Your task to perform on an android device: Open ESPN.com Image 0: 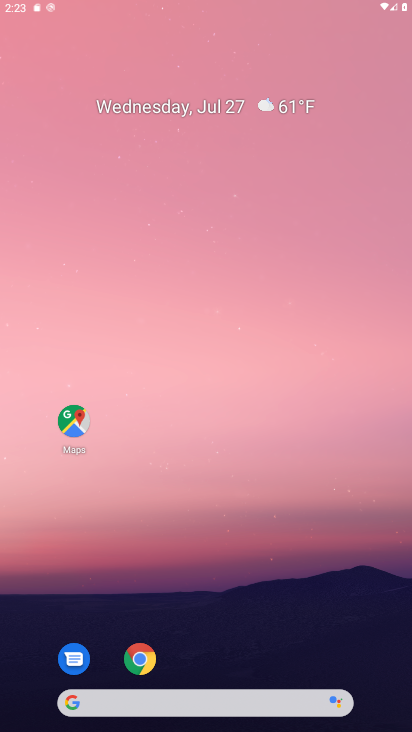
Step 0: press home button
Your task to perform on an android device: Open ESPN.com Image 1: 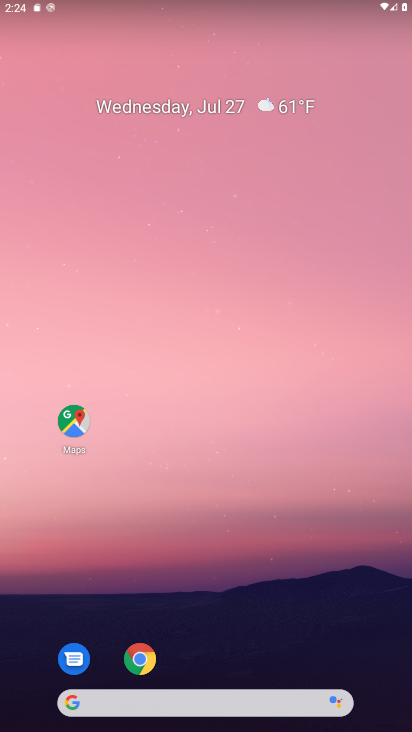
Step 1: click (136, 669)
Your task to perform on an android device: Open ESPN.com Image 2: 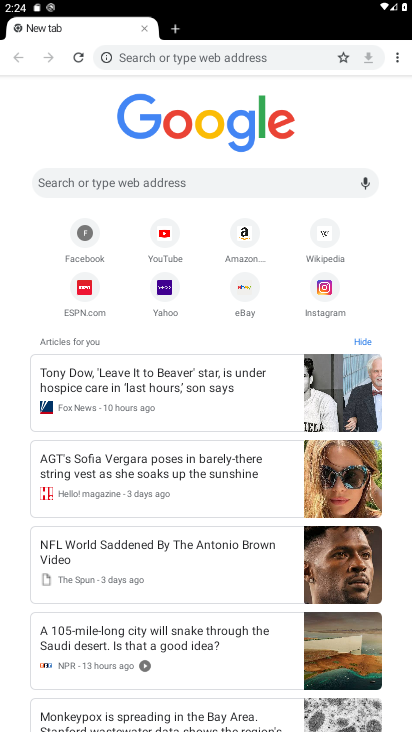
Step 2: click (83, 300)
Your task to perform on an android device: Open ESPN.com Image 3: 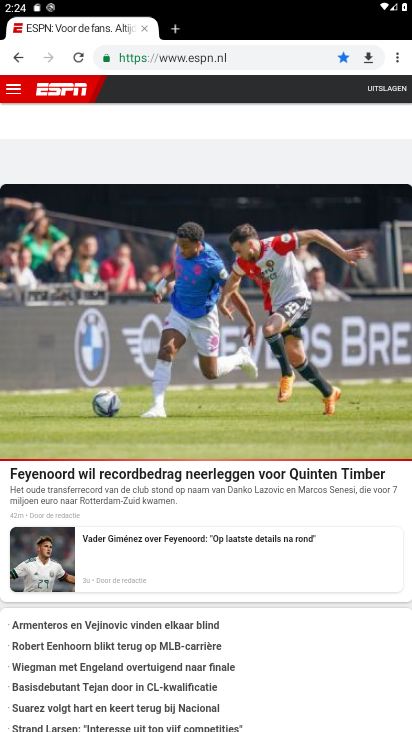
Step 3: task complete